Your task to perform on an android device: add a label to a message in the gmail app Image 0: 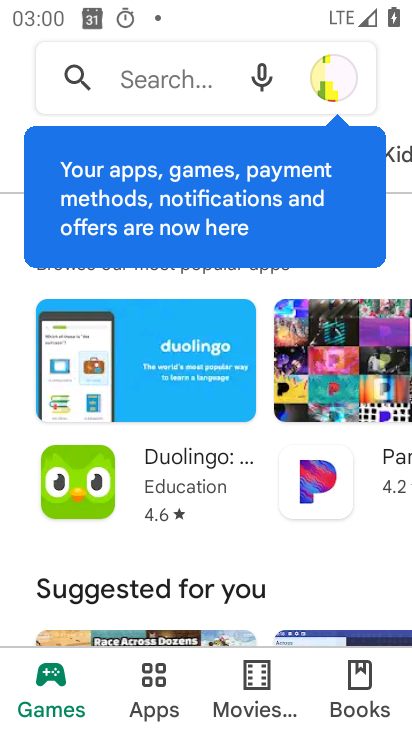
Step 0: press back button
Your task to perform on an android device: add a label to a message in the gmail app Image 1: 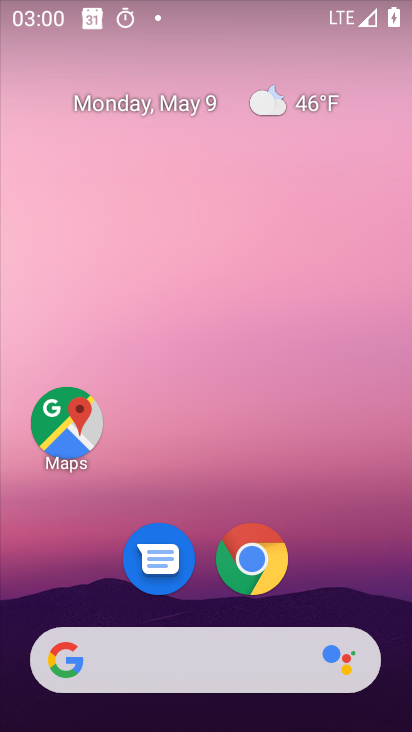
Step 1: drag from (335, 551) to (324, 11)
Your task to perform on an android device: add a label to a message in the gmail app Image 2: 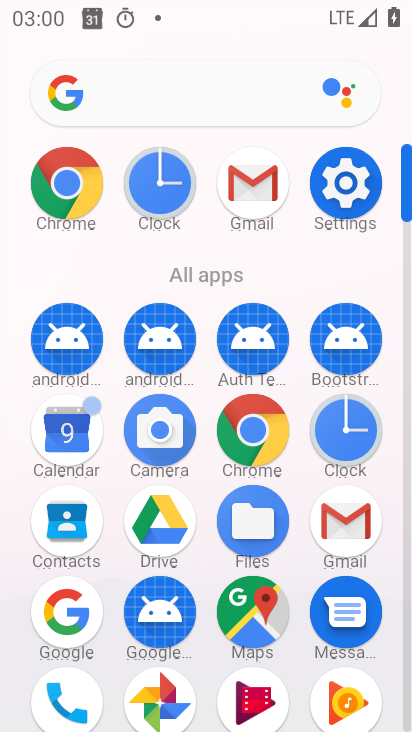
Step 2: click (252, 183)
Your task to perform on an android device: add a label to a message in the gmail app Image 3: 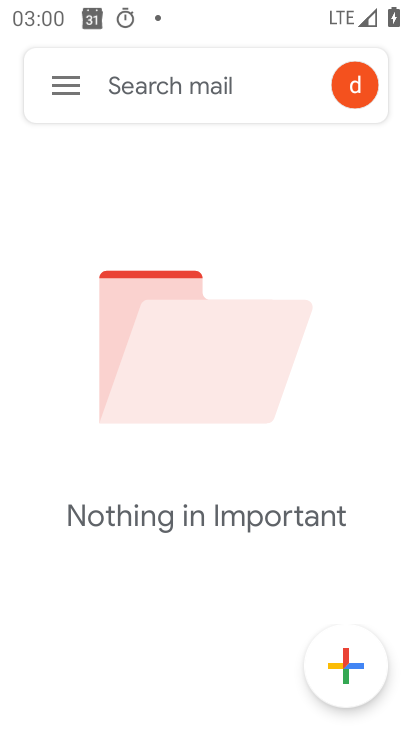
Step 3: click (63, 84)
Your task to perform on an android device: add a label to a message in the gmail app Image 4: 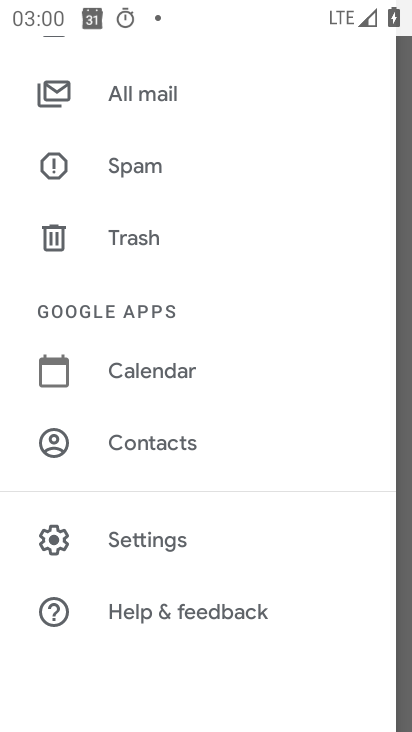
Step 4: drag from (193, 206) to (192, 333)
Your task to perform on an android device: add a label to a message in the gmail app Image 5: 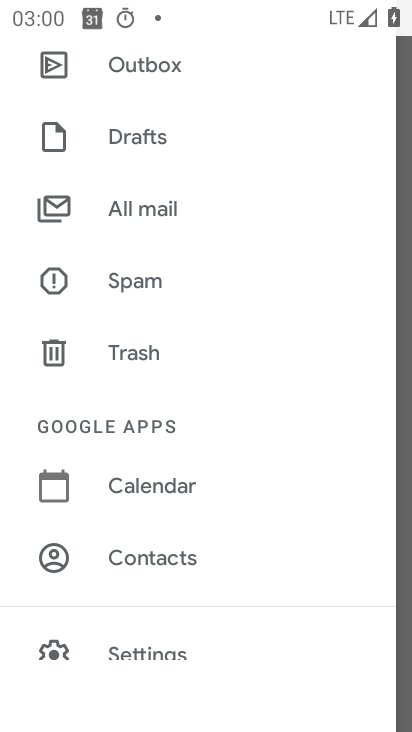
Step 5: drag from (192, 333) to (212, 429)
Your task to perform on an android device: add a label to a message in the gmail app Image 6: 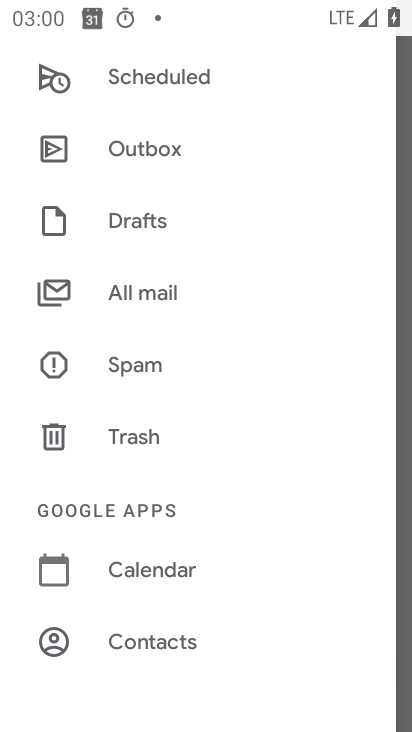
Step 6: drag from (210, 296) to (225, 387)
Your task to perform on an android device: add a label to a message in the gmail app Image 7: 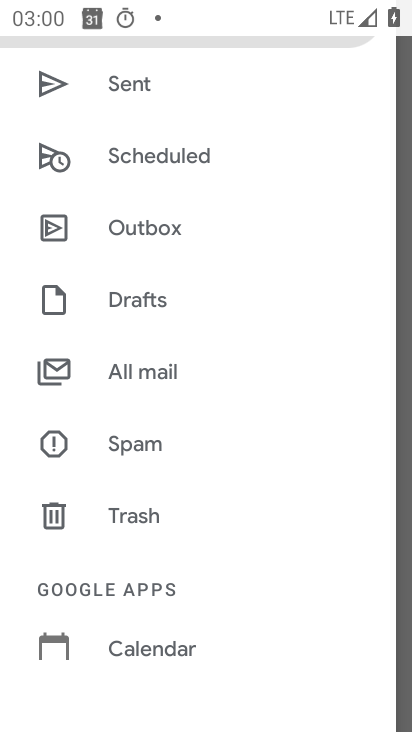
Step 7: drag from (226, 316) to (219, 370)
Your task to perform on an android device: add a label to a message in the gmail app Image 8: 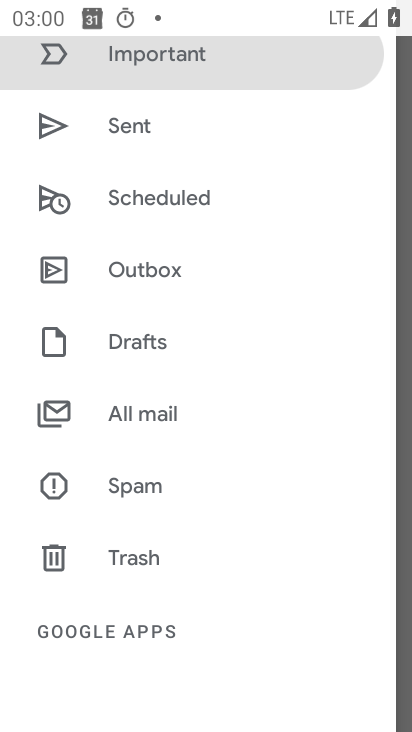
Step 8: drag from (223, 218) to (216, 353)
Your task to perform on an android device: add a label to a message in the gmail app Image 9: 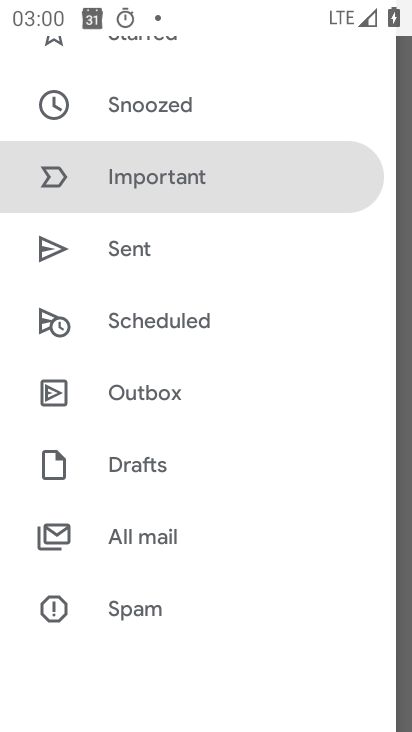
Step 9: drag from (205, 270) to (232, 393)
Your task to perform on an android device: add a label to a message in the gmail app Image 10: 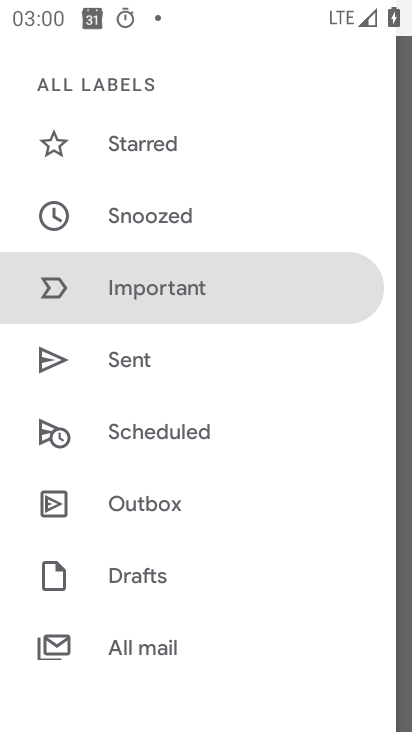
Step 10: drag from (195, 213) to (209, 313)
Your task to perform on an android device: add a label to a message in the gmail app Image 11: 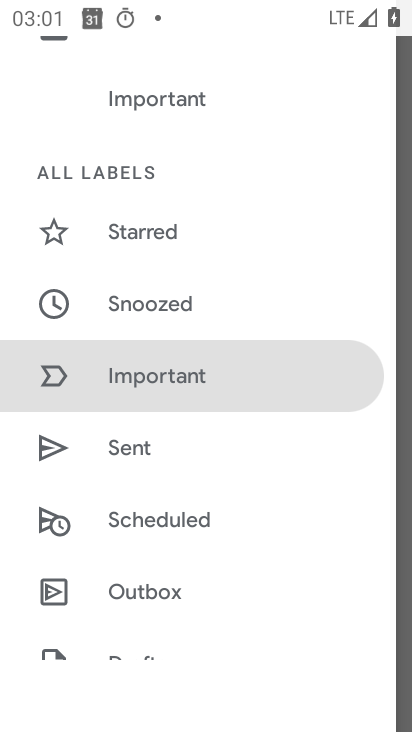
Step 11: drag from (186, 173) to (193, 280)
Your task to perform on an android device: add a label to a message in the gmail app Image 12: 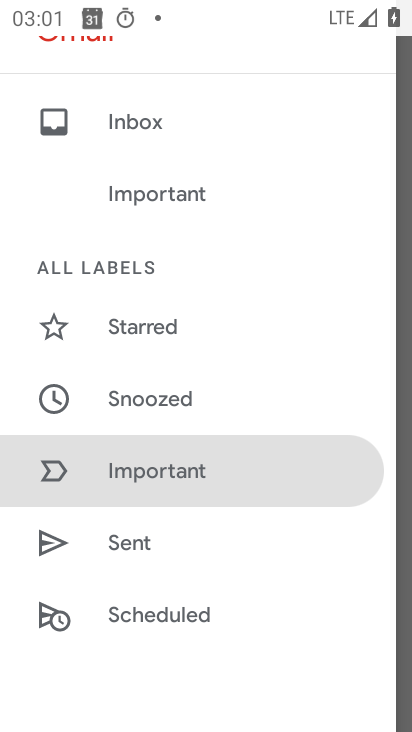
Step 12: drag from (213, 239) to (195, 390)
Your task to perform on an android device: add a label to a message in the gmail app Image 13: 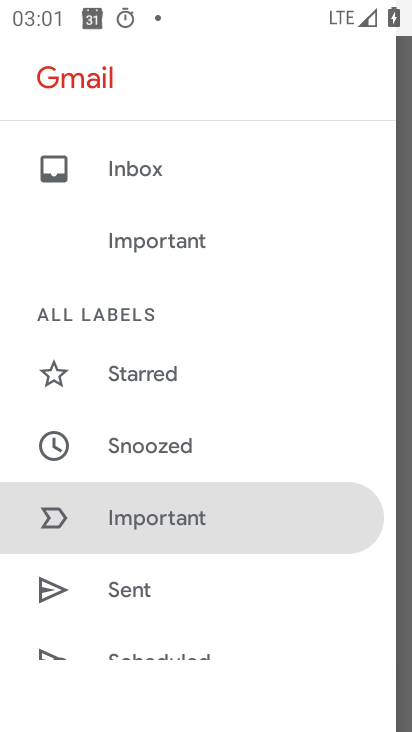
Step 13: drag from (197, 298) to (198, 426)
Your task to perform on an android device: add a label to a message in the gmail app Image 14: 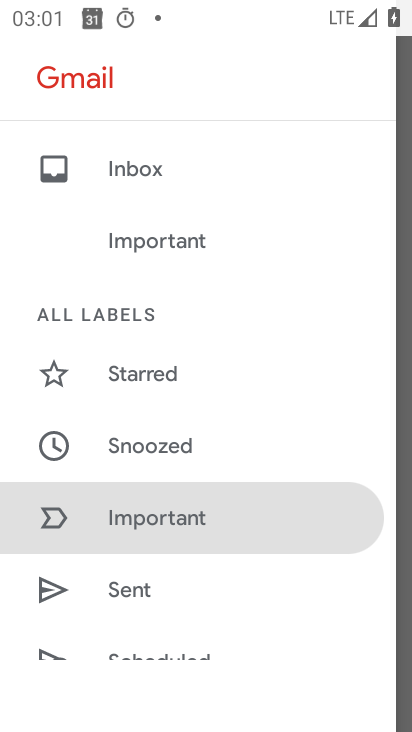
Step 14: drag from (208, 341) to (214, 474)
Your task to perform on an android device: add a label to a message in the gmail app Image 15: 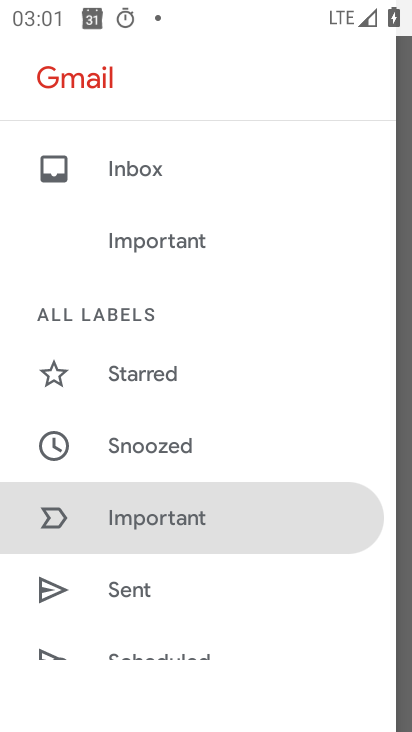
Step 15: click (193, 513)
Your task to perform on an android device: add a label to a message in the gmail app Image 16: 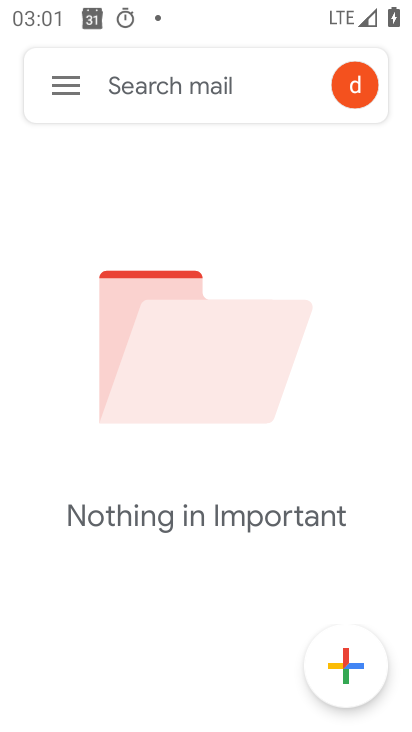
Step 16: task complete